Your task to perform on an android device: Go to Android settings Image 0: 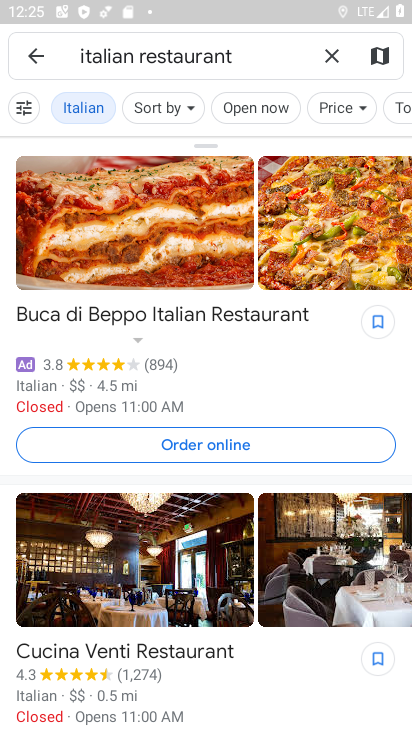
Step 0: press home button
Your task to perform on an android device: Go to Android settings Image 1: 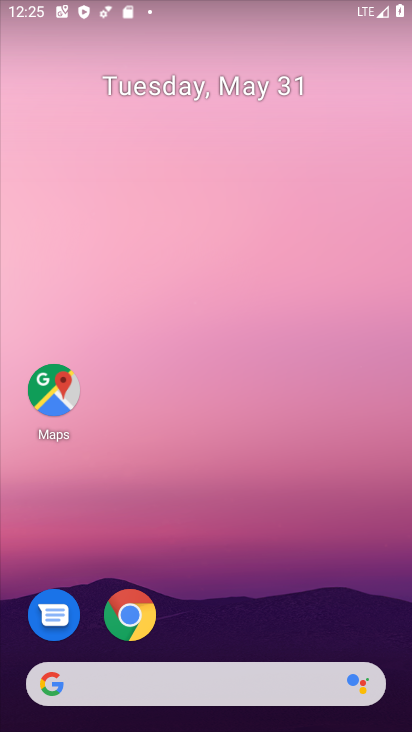
Step 1: drag from (212, 595) to (227, 363)
Your task to perform on an android device: Go to Android settings Image 2: 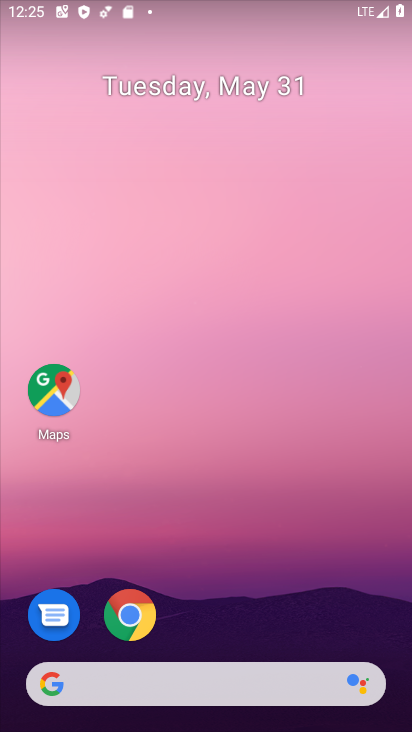
Step 2: drag from (241, 646) to (264, 348)
Your task to perform on an android device: Go to Android settings Image 3: 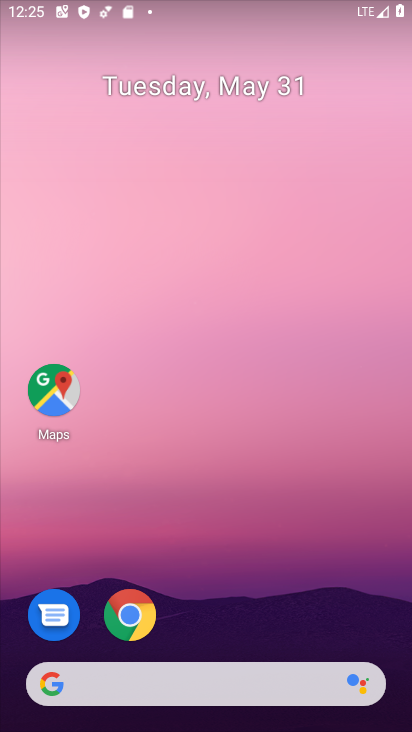
Step 3: drag from (194, 643) to (280, 15)
Your task to perform on an android device: Go to Android settings Image 4: 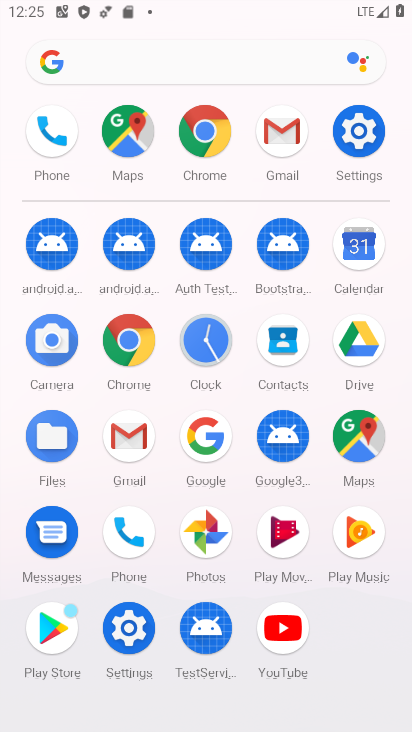
Step 4: click (366, 166)
Your task to perform on an android device: Go to Android settings Image 5: 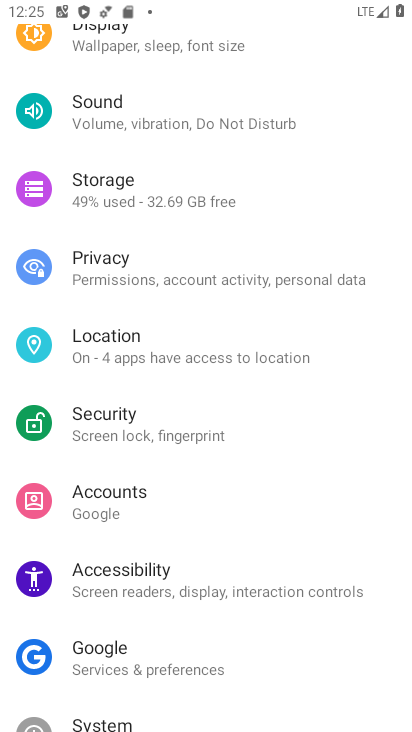
Step 5: drag from (125, 638) to (181, 159)
Your task to perform on an android device: Go to Android settings Image 6: 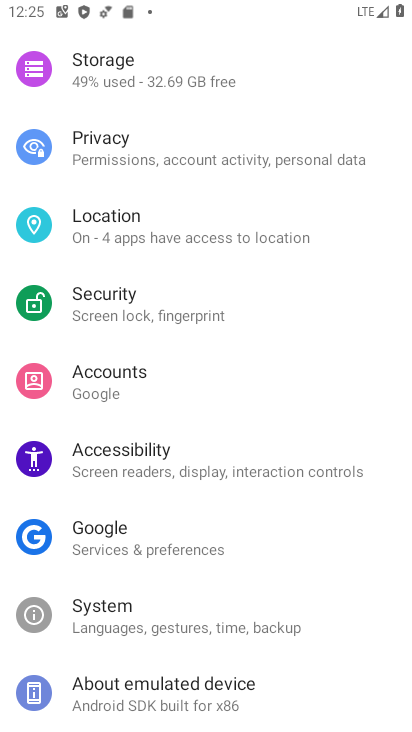
Step 6: click (138, 698)
Your task to perform on an android device: Go to Android settings Image 7: 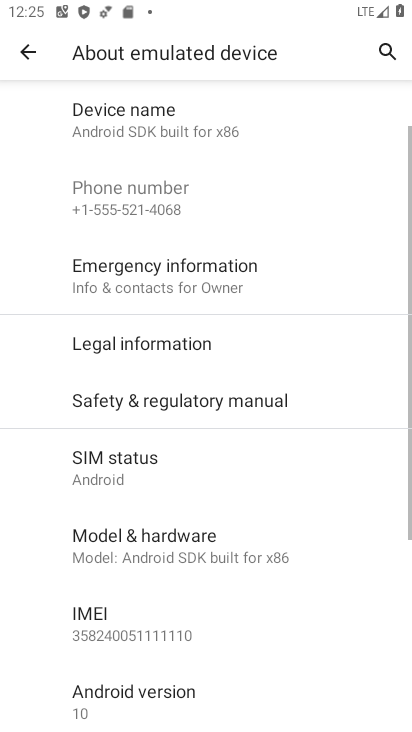
Step 7: click (112, 695)
Your task to perform on an android device: Go to Android settings Image 8: 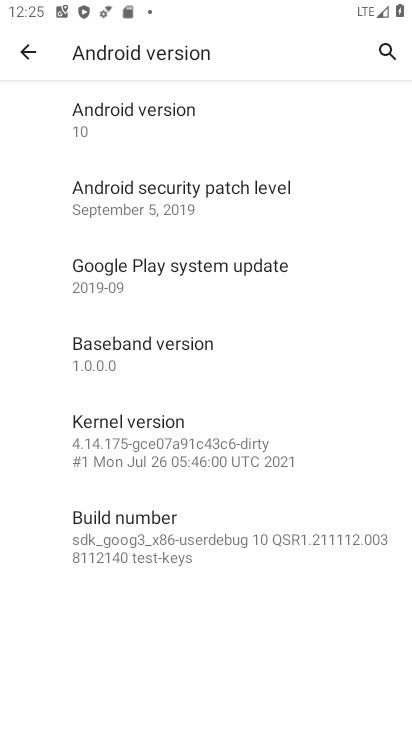
Step 8: task complete